Your task to perform on an android device: Go to Wikipedia Image 0: 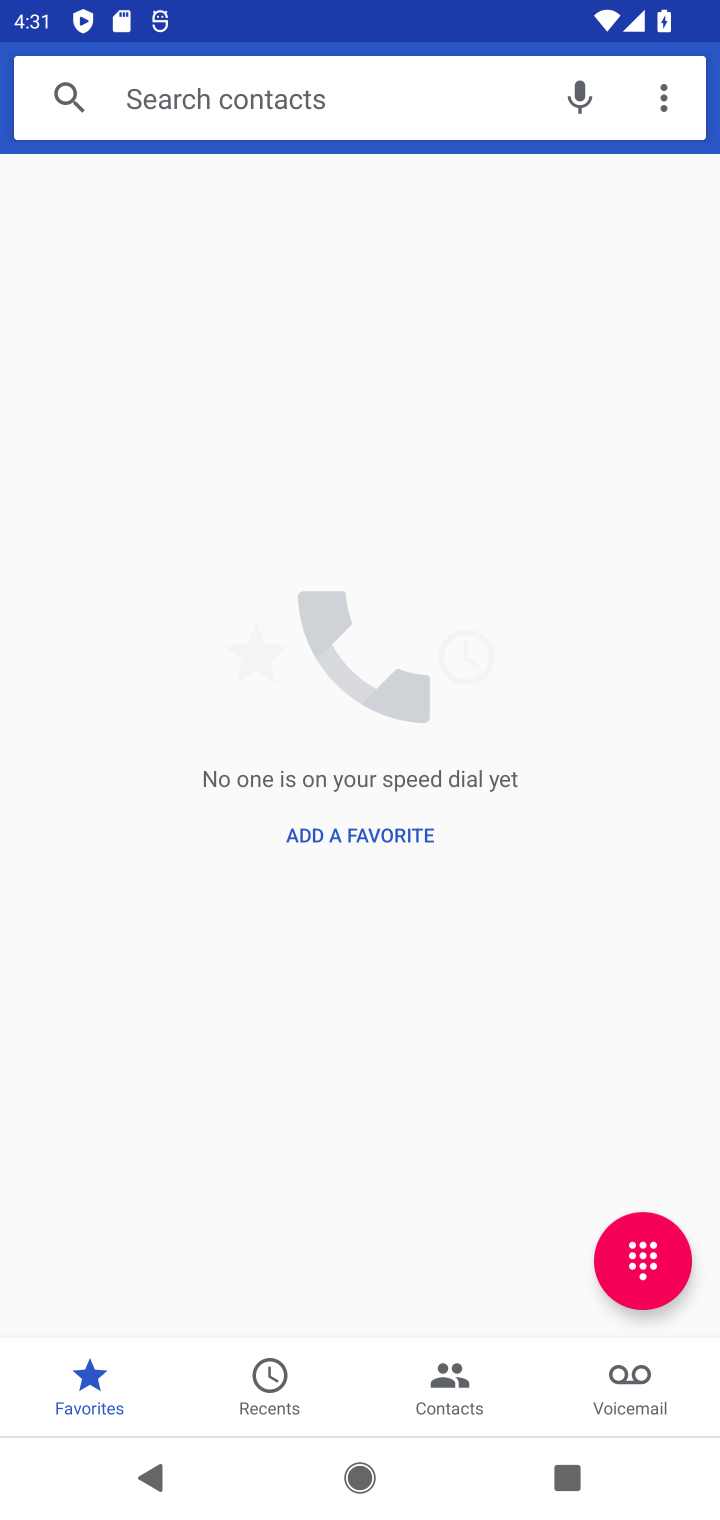
Step 0: press home button
Your task to perform on an android device: Go to Wikipedia Image 1: 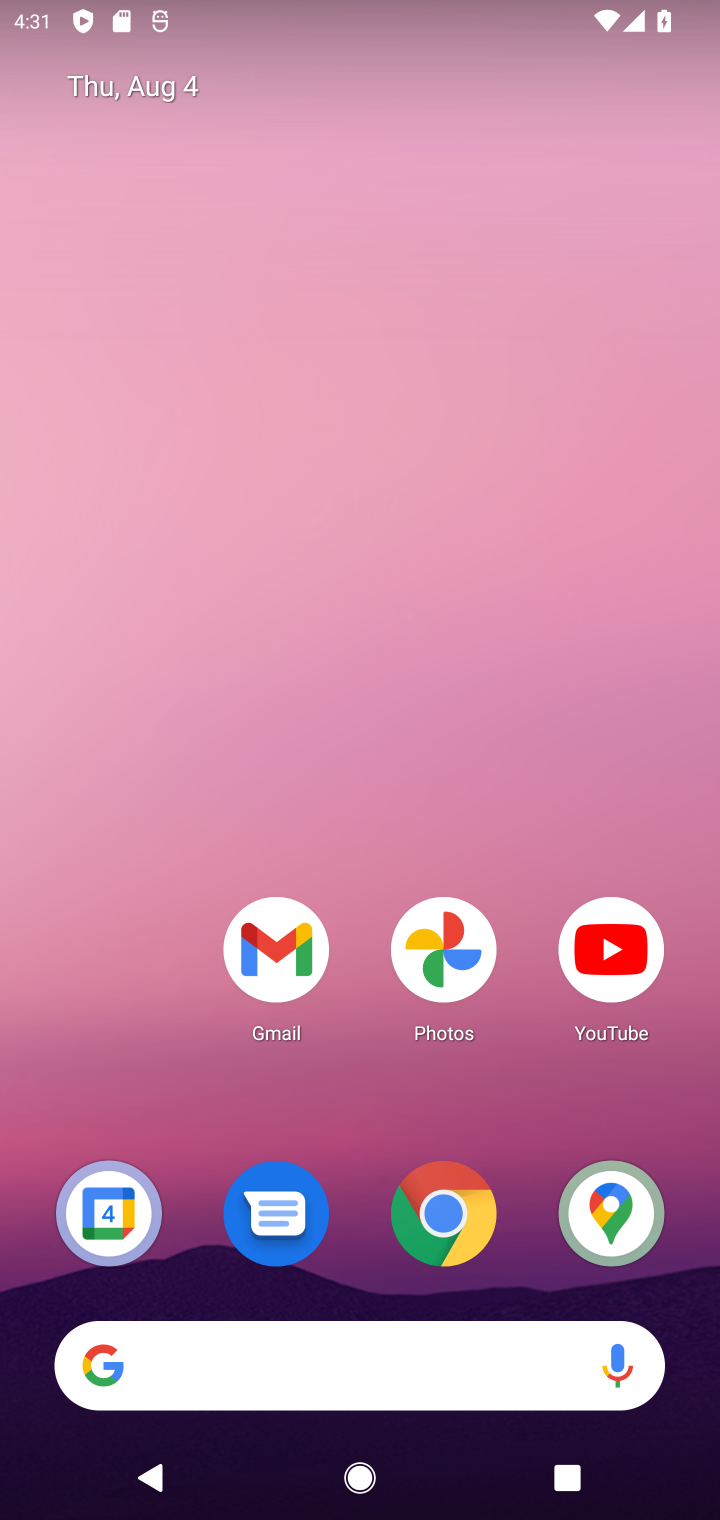
Step 1: drag from (165, 1020) to (186, 365)
Your task to perform on an android device: Go to Wikipedia Image 2: 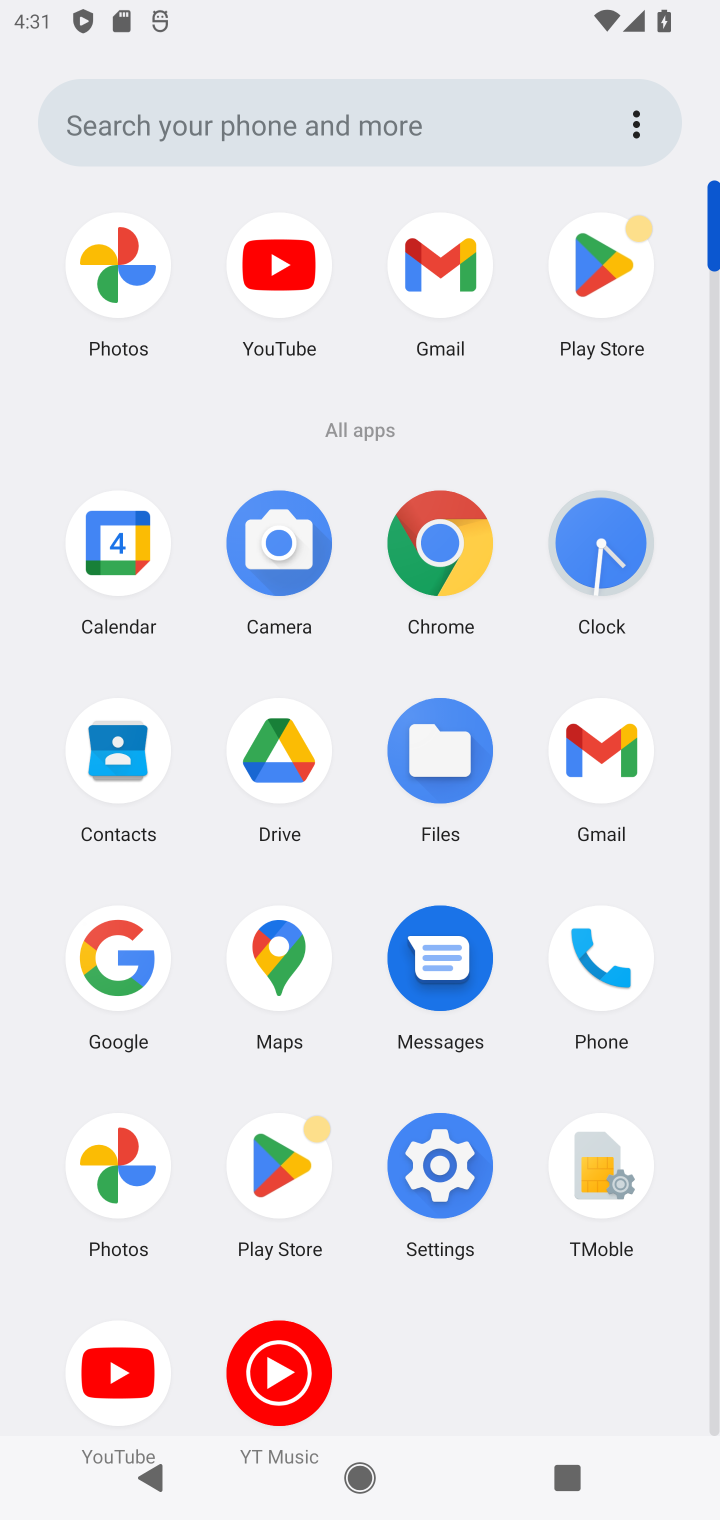
Step 2: click (445, 570)
Your task to perform on an android device: Go to Wikipedia Image 3: 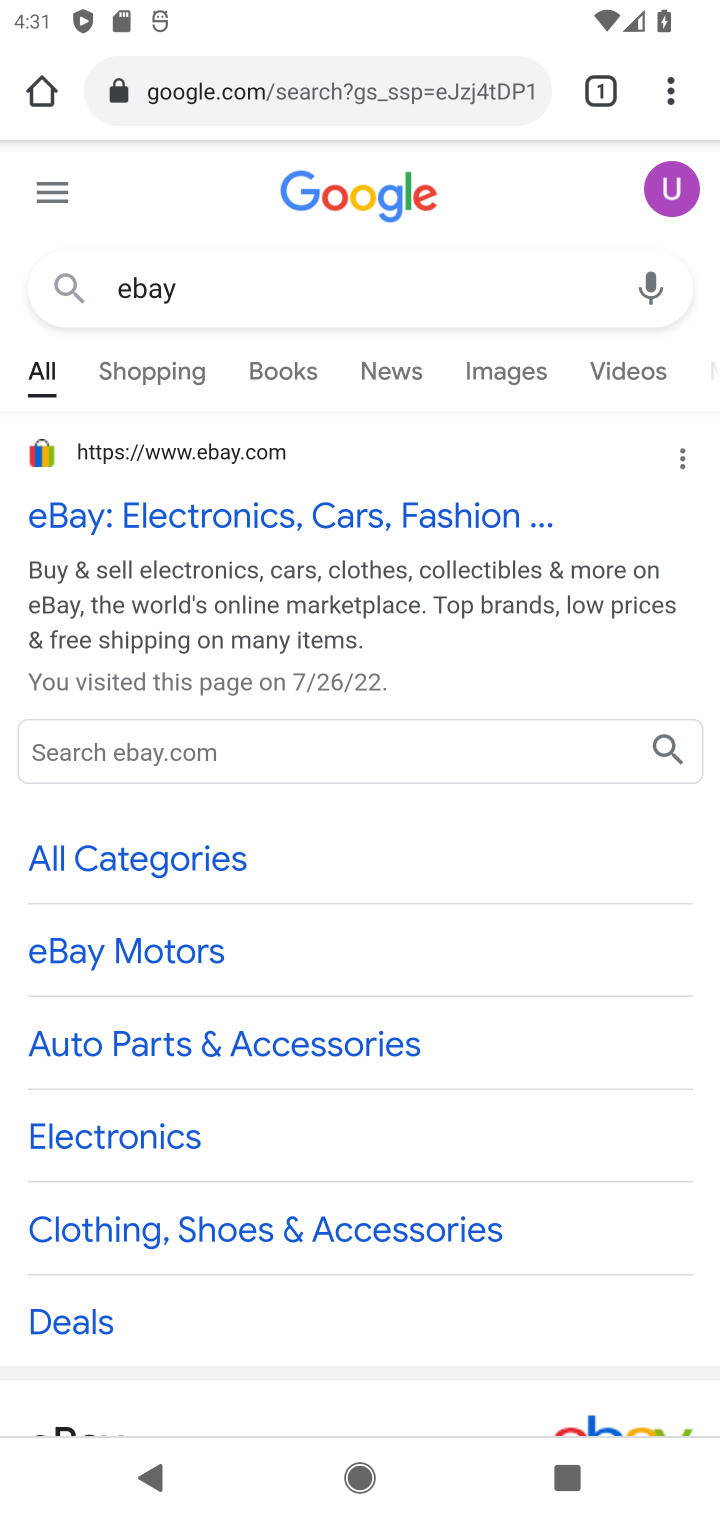
Step 3: click (404, 82)
Your task to perform on an android device: Go to Wikipedia Image 4: 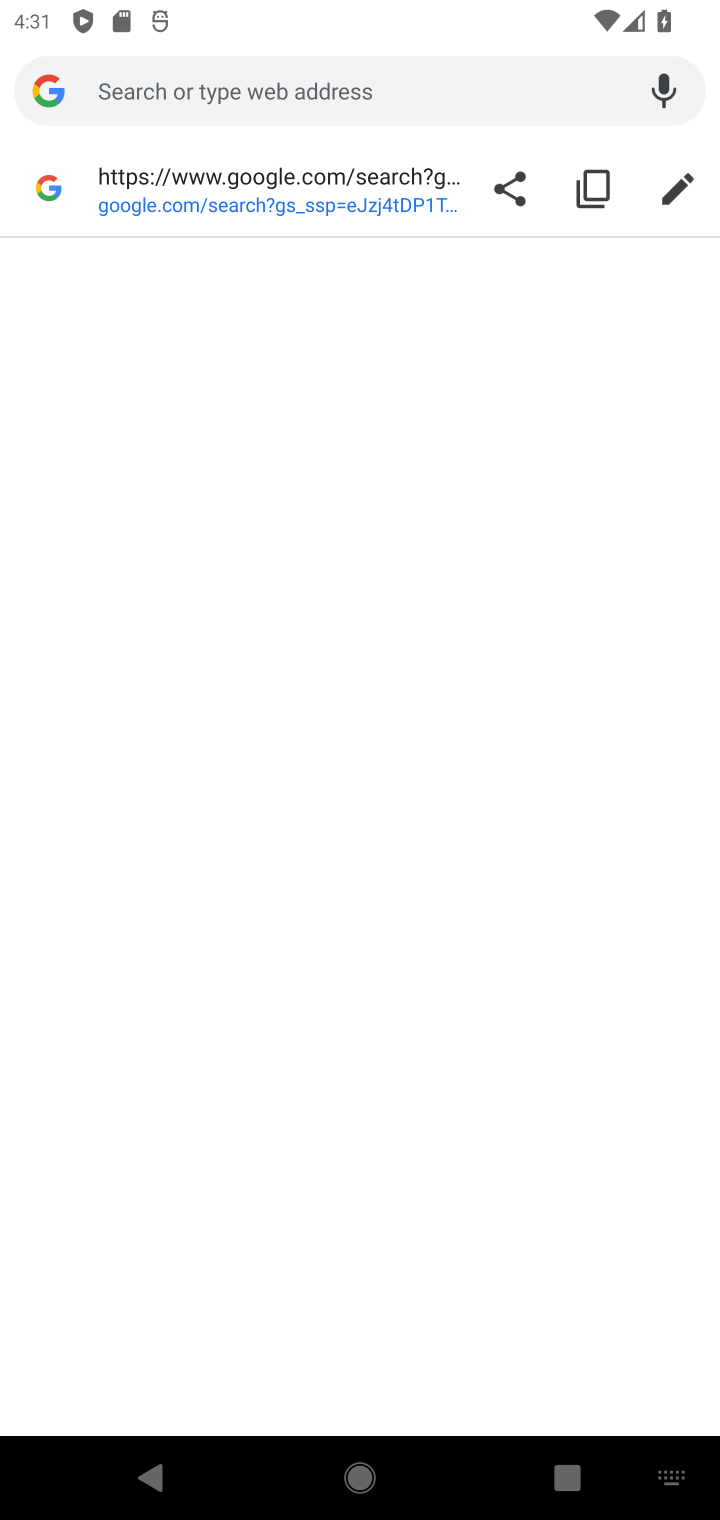
Step 4: type "wikipedia"
Your task to perform on an android device: Go to Wikipedia Image 5: 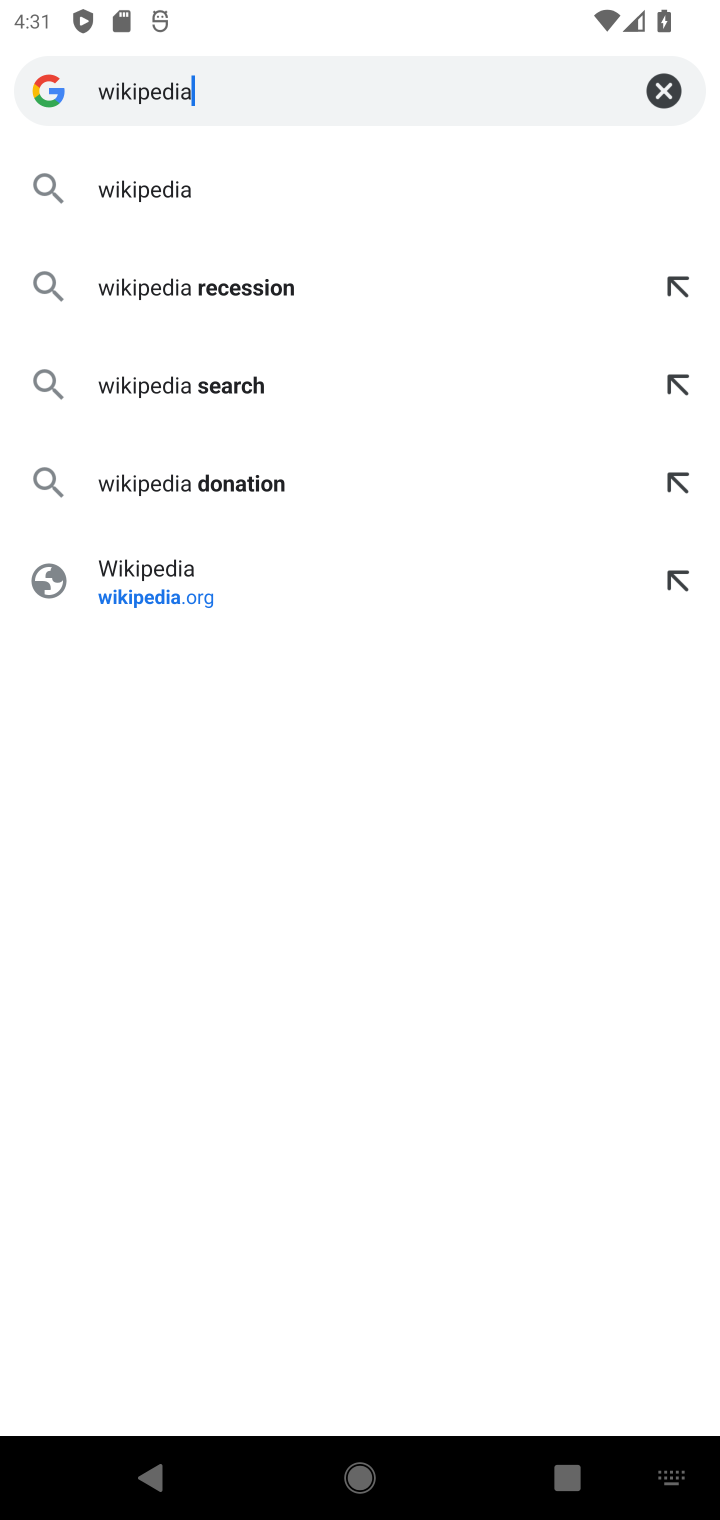
Step 5: click (298, 171)
Your task to perform on an android device: Go to Wikipedia Image 6: 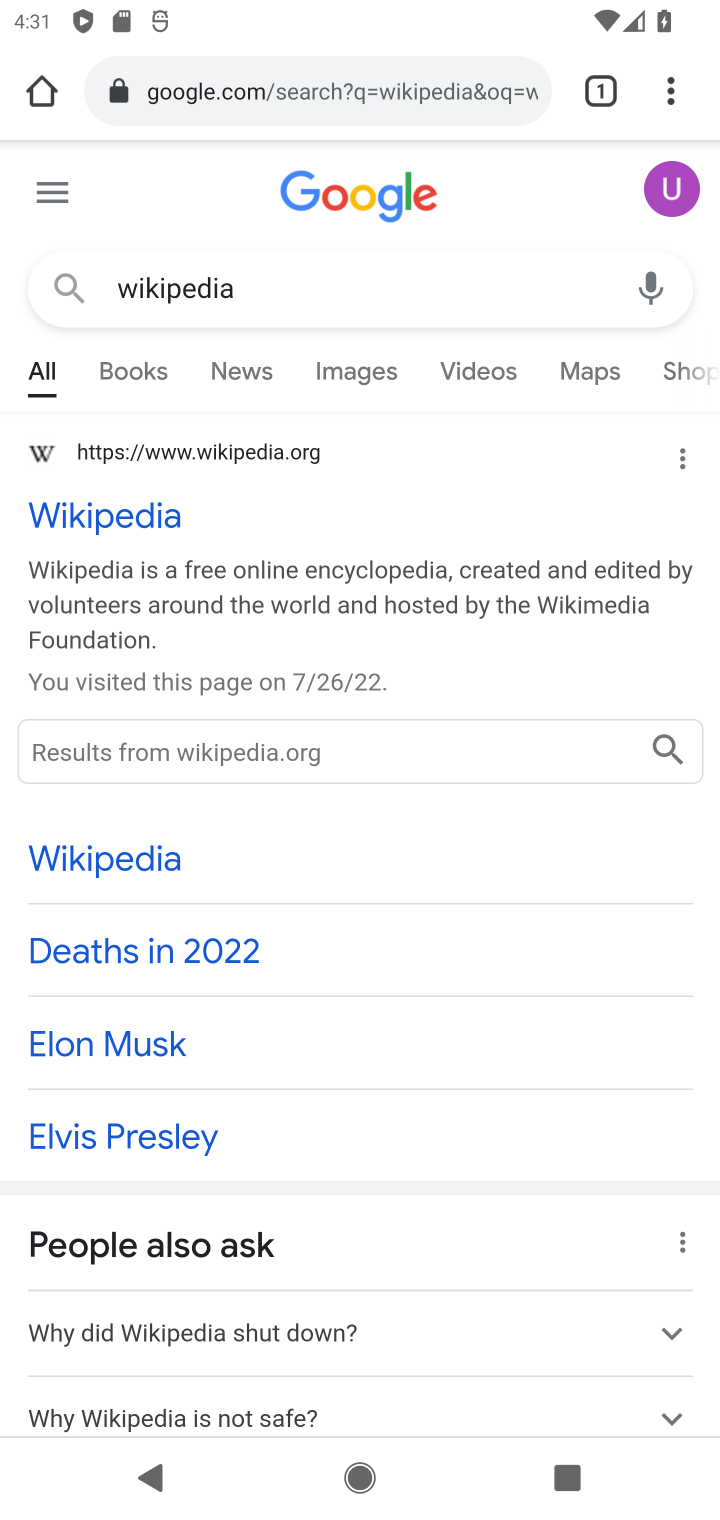
Step 6: task complete